Your task to perform on an android device: Open Amazon Image 0: 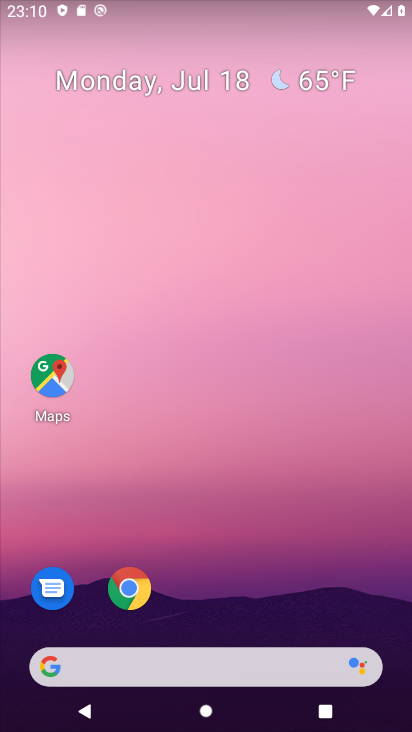
Step 0: press home button
Your task to perform on an android device: Open Amazon Image 1: 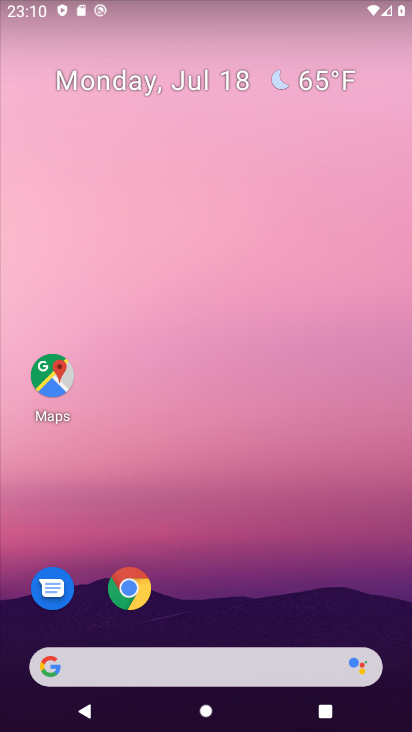
Step 1: click (46, 662)
Your task to perform on an android device: Open Amazon Image 2: 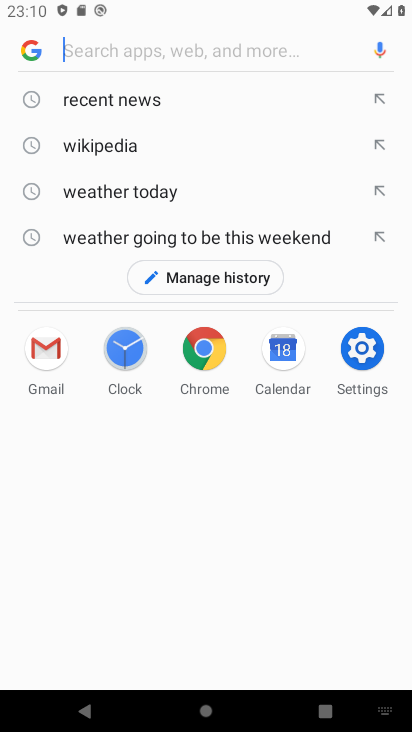
Step 2: type "Amazon"
Your task to perform on an android device: Open Amazon Image 3: 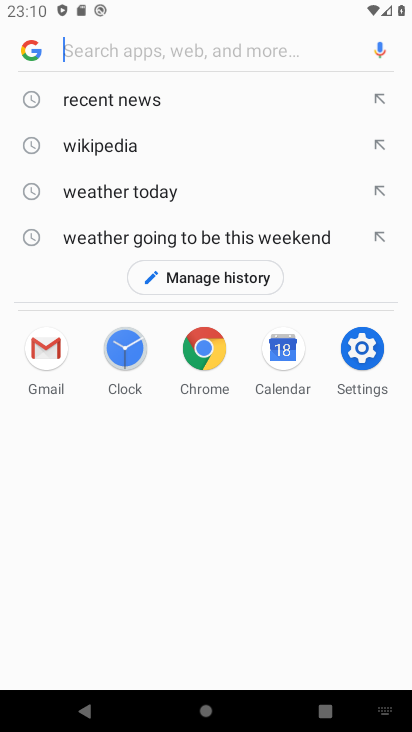
Step 3: click (91, 53)
Your task to perform on an android device: Open Amazon Image 4: 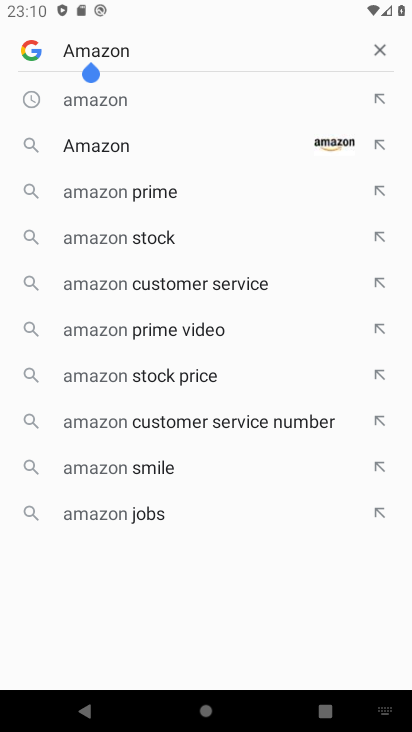
Step 4: click (335, 136)
Your task to perform on an android device: Open Amazon Image 5: 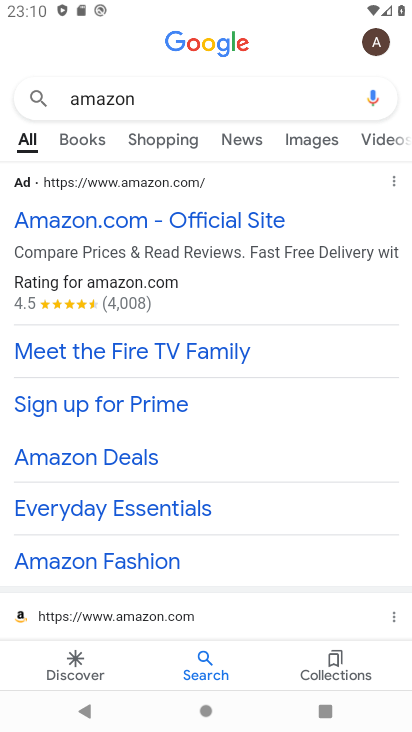
Step 5: click (129, 613)
Your task to perform on an android device: Open Amazon Image 6: 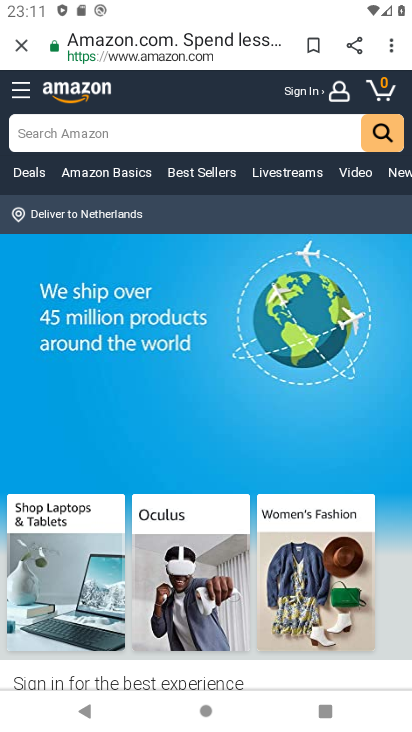
Step 6: task complete